Your task to perform on an android device: turn off smart reply in the gmail app Image 0: 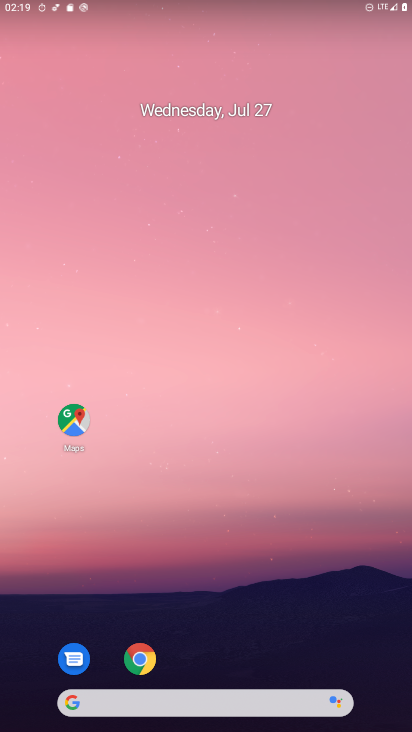
Step 0: drag from (292, 612) to (205, 134)
Your task to perform on an android device: turn off smart reply in the gmail app Image 1: 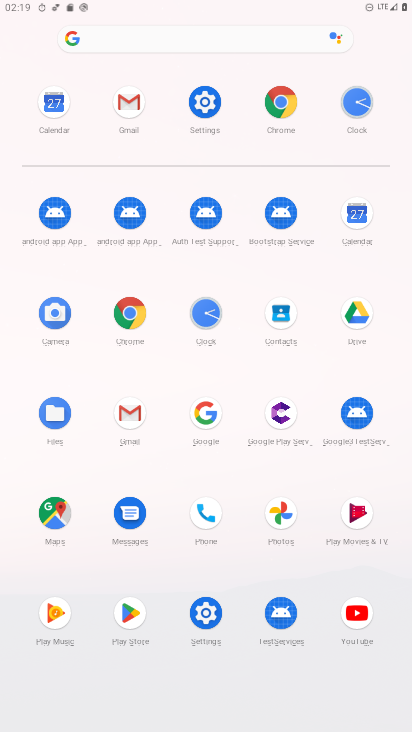
Step 1: click (132, 104)
Your task to perform on an android device: turn off smart reply in the gmail app Image 2: 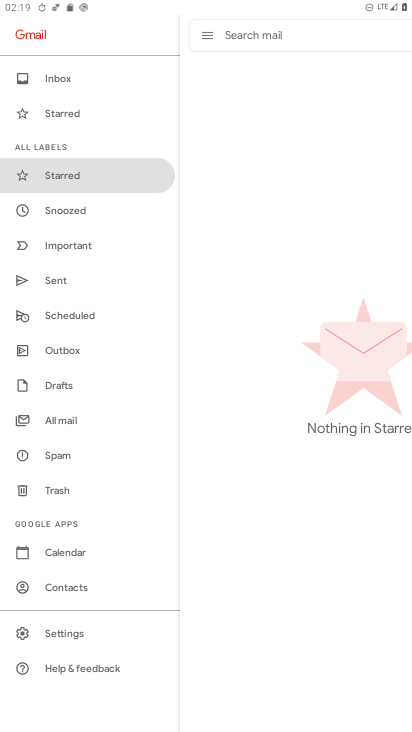
Step 2: click (80, 631)
Your task to perform on an android device: turn off smart reply in the gmail app Image 3: 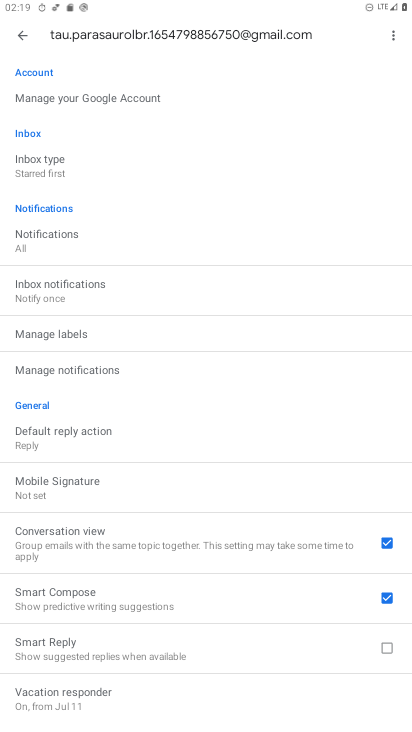
Step 3: click (60, 173)
Your task to perform on an android device: turn off smart reply in the gmail app Image 4: 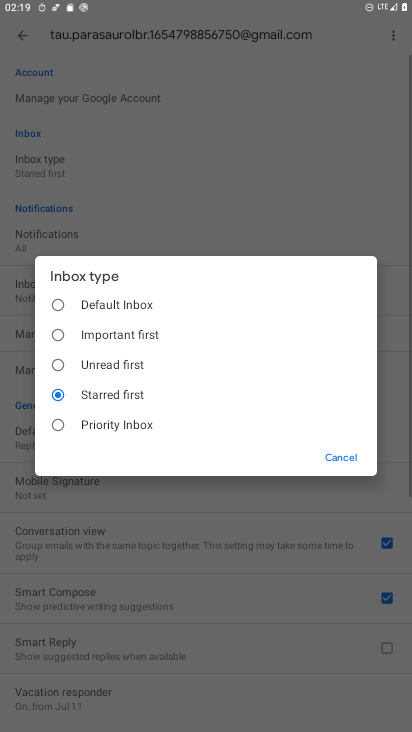
Step 4: click (116, 131)
Your task to perform on an android device: turn off smart reply in the gmail app Image 5: 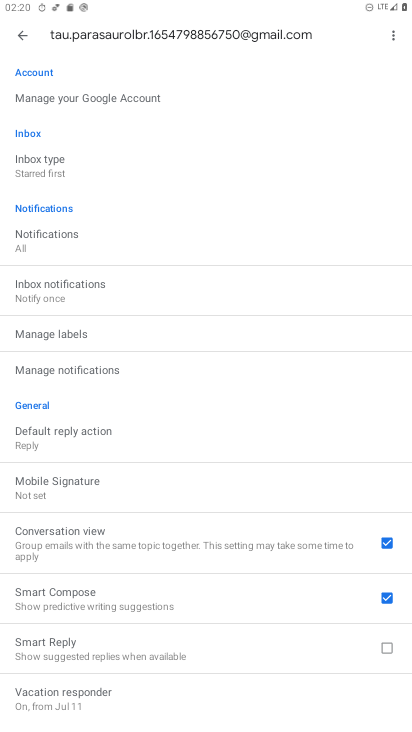
Step 5: task complete